Your task to perform on an android device: open app "TextNow: Call + Text Unlimited" (install if not already installed) and enter user name: "stoke@yahoo.com" and password: "prompted" Image 0: 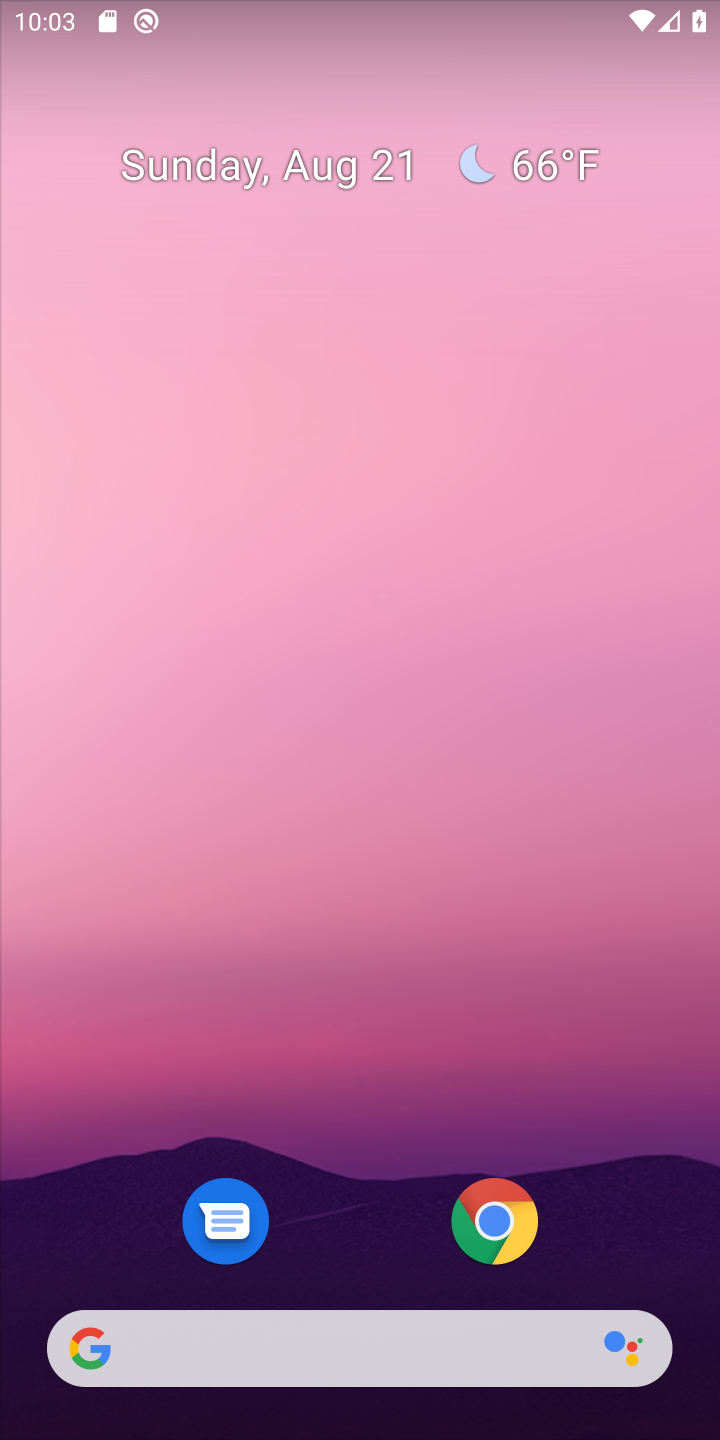
Step 0: drag from (332, 1153) to (309, 279)
Your task to perform on an android device: open app "TextNow: Call + Text Unlimited" (install if not already installed) and enter user name: "stoke@yahoo.com" and password: "prompted" Image 1: 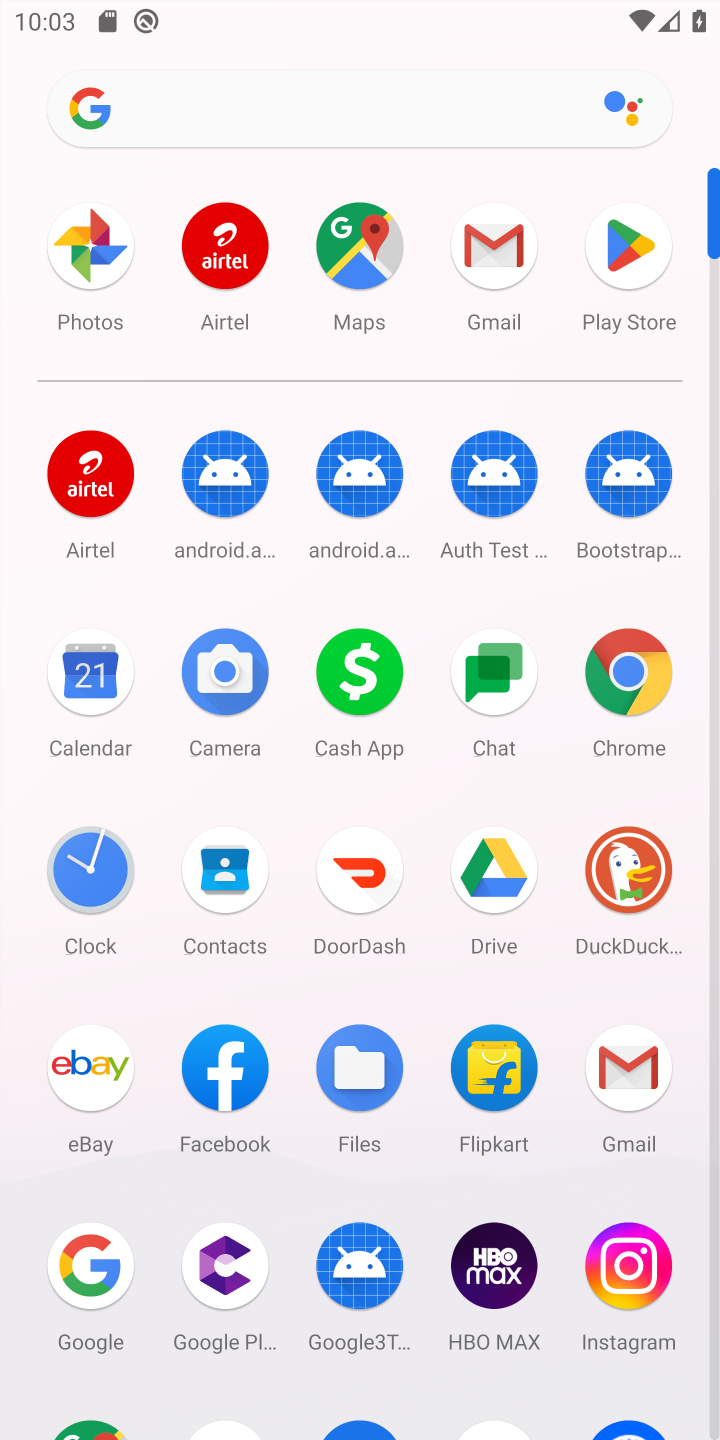
Step 1: click (630, 274)
Your task to perform on an android device: open app "TextNow: Call + Text Unlimited" (install if not already installed) and enter user name: "stoke@yahoo.com" and password: "prompted" Image 2: 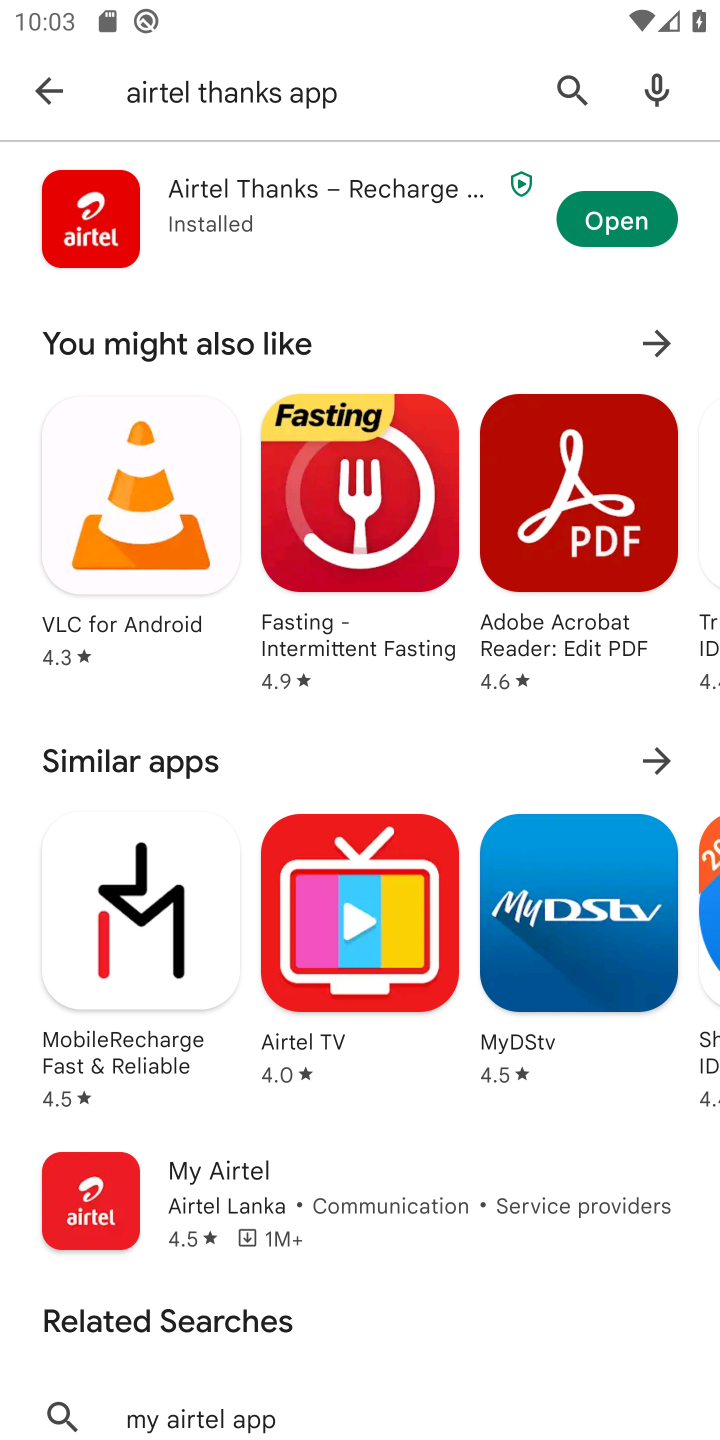
Step 2: click (575, 83)
Your task to perform on an android device: open app "TextNow: Call + Text Unlimited" (install if not already installed) and enter user name: "stoke@yahoo.com" and password: "prompted" Image 3: 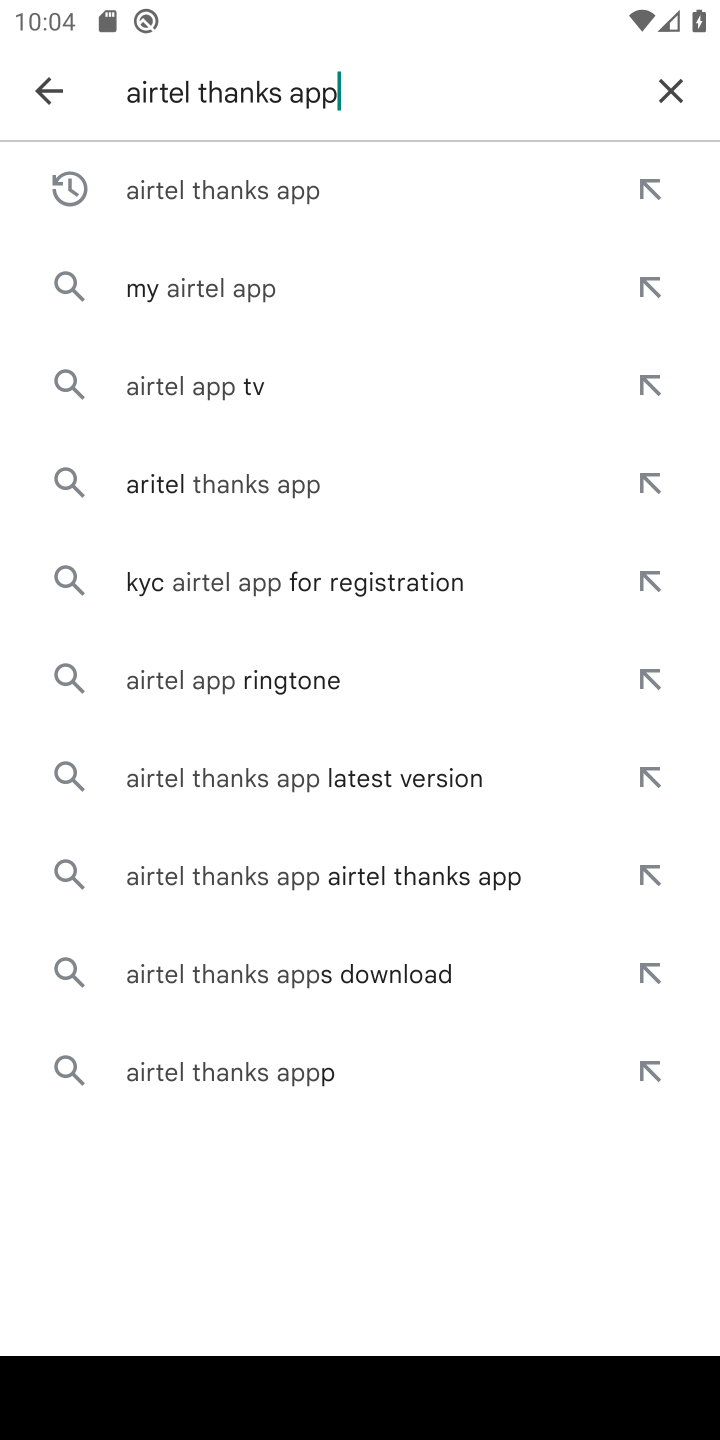
Step 3: click (668, 81)
Your task to perform on an android device: open app "TextNow: Call + Text Unlimited" (install if not already installed) and enter user name: "stoke@yahoo.com" and password: "prompted" Image 4: 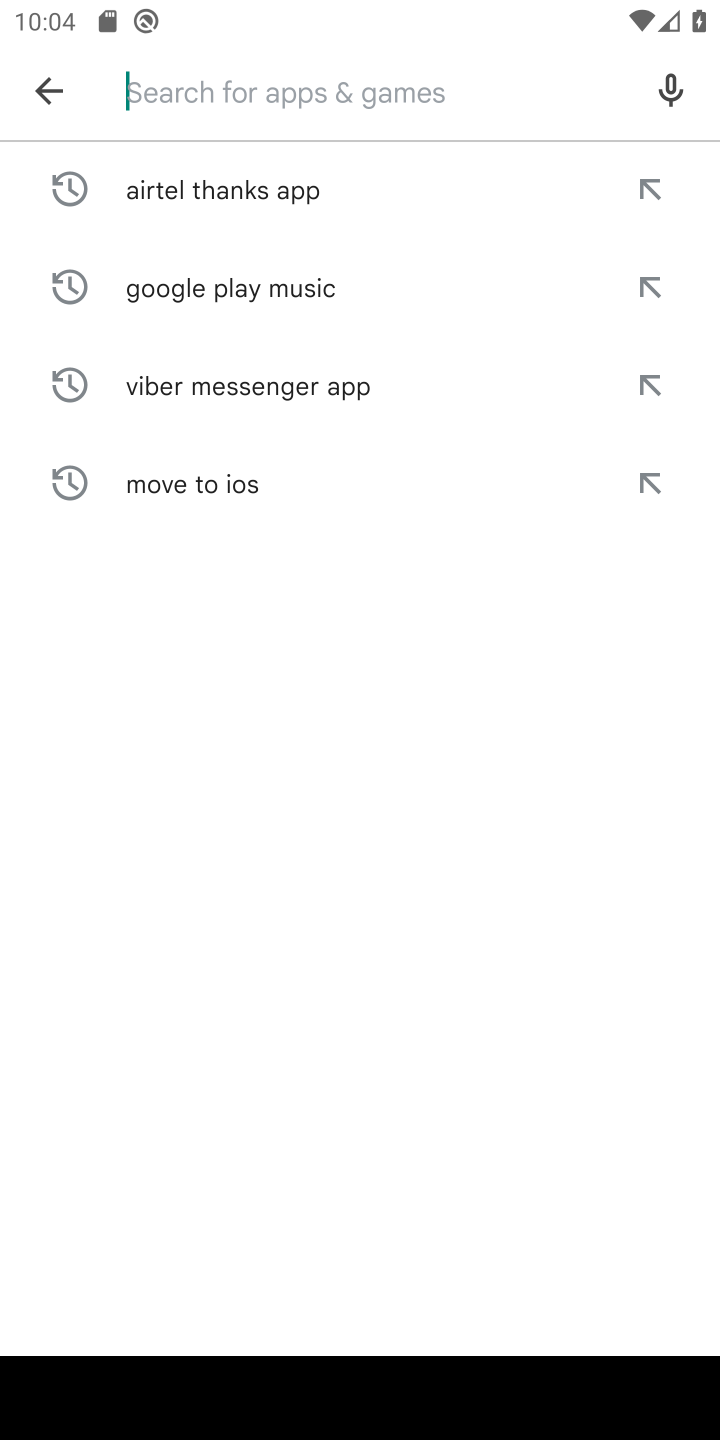
Step 4: type "TextNow: Call + Text Unlimited"
Your task to perform on an android device: open app "TextNow: Call + Text Unlimited" (install if not already installed) and enter user name: "stoke@yahoo.com" and password: "prompted" Image 5: 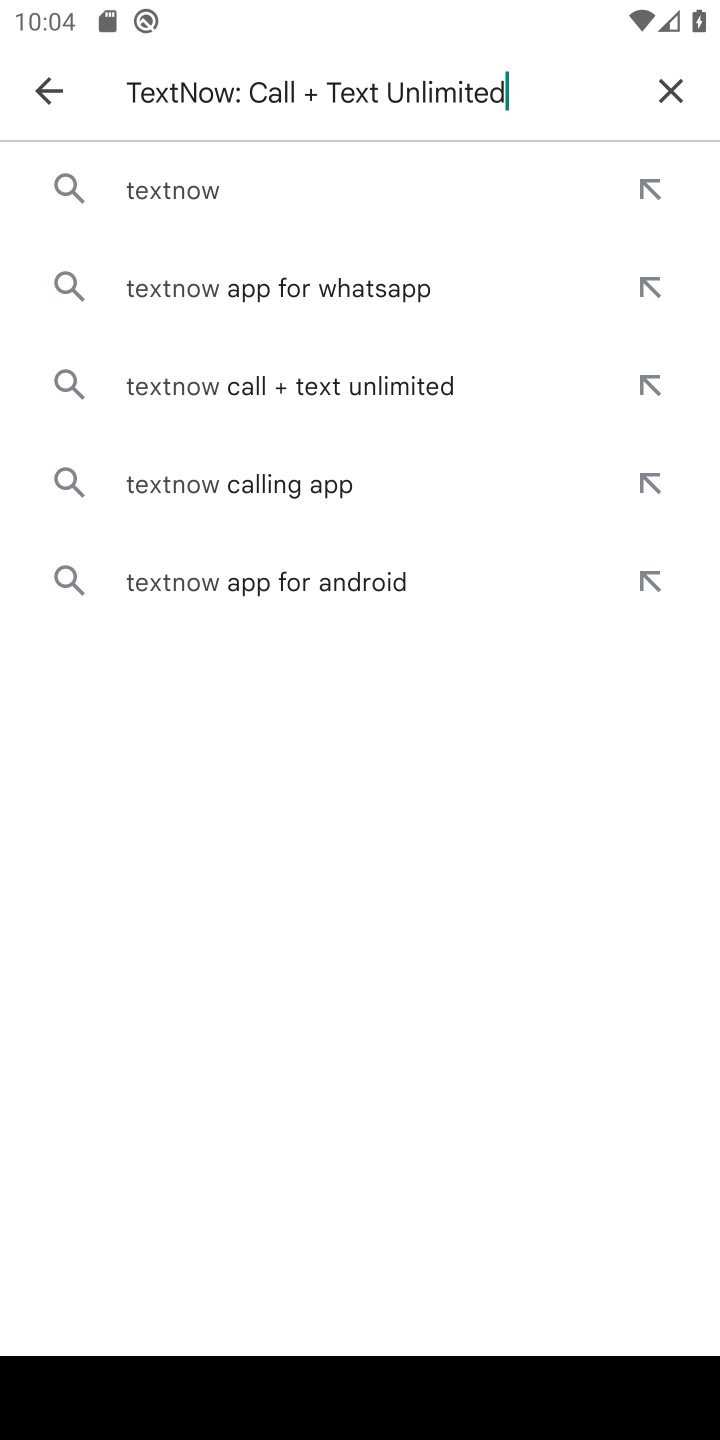
Step 5: type ""
Your task to perform on an android device: open app "TextNow: Call + Text Unlimited" (install if not already installed) and enter user name: "stoke@yahoo.com" and password: "prompted" Image 6: 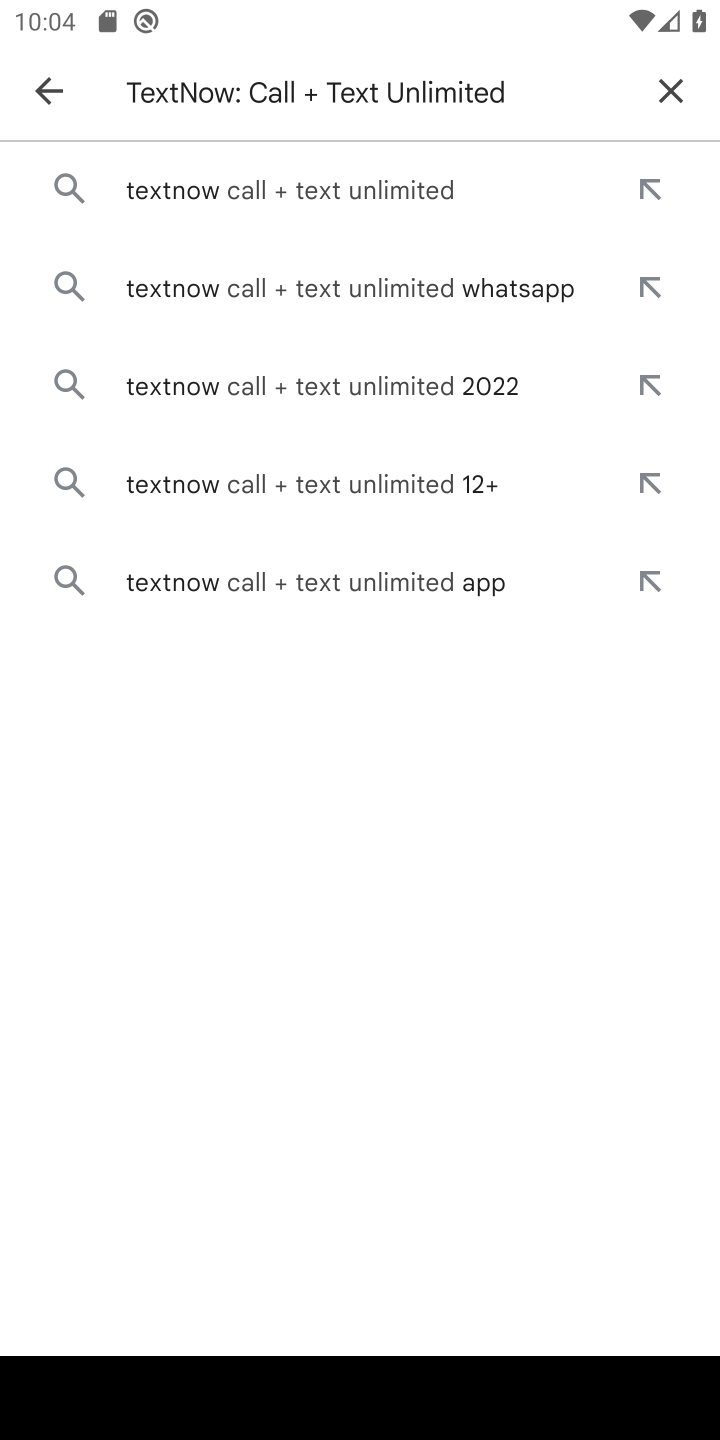
Step 6: click (316, 201)
Your task to perform on an android device: open app "TextNow: Call + Text Unlimited" (install if not already installed) and enter user name: "stoke@yahoo.com" and password: "prompted" Image 7: 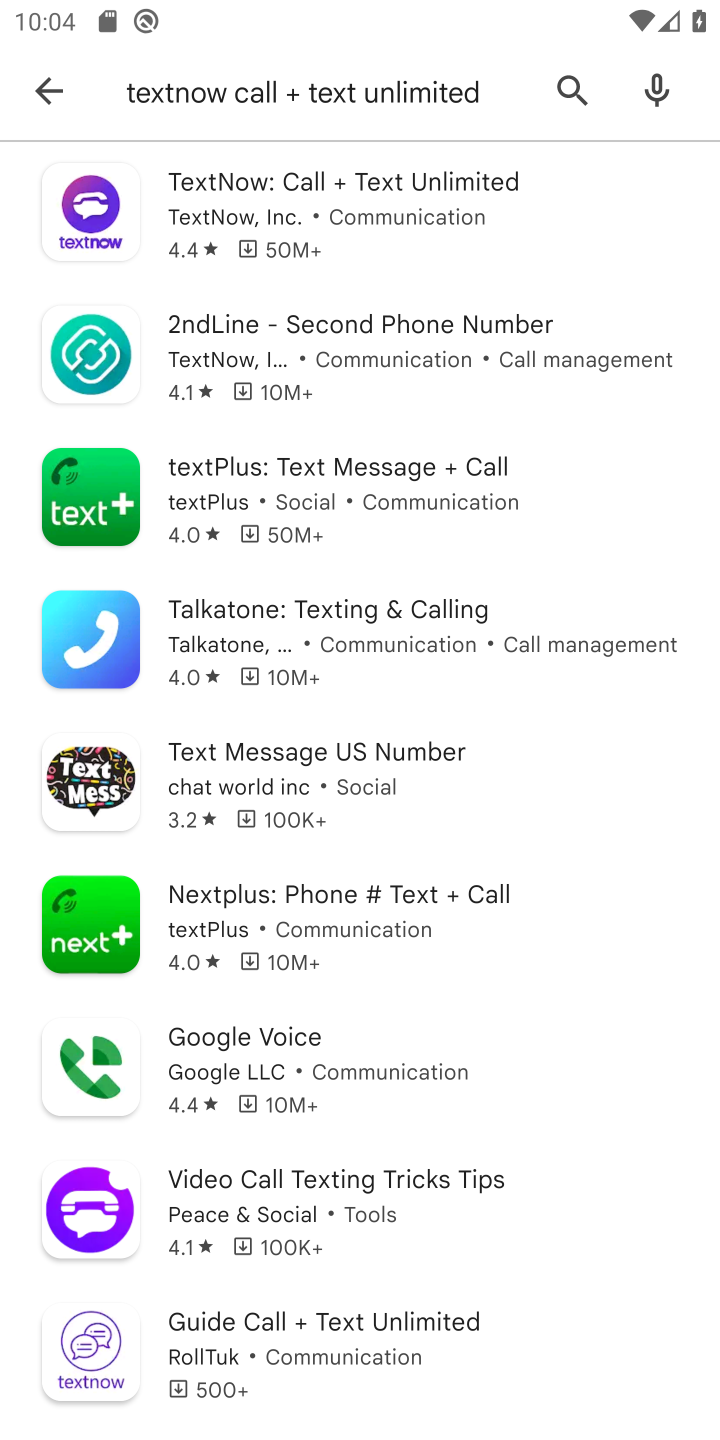
Step 7: click (302, 244)
Your task to perform on an android device: open app "TextNow: Call + Text Unlimited" (install if not already installed) and enter user name: "stoke@yahoo.com" and password: "prompted" Image 8: 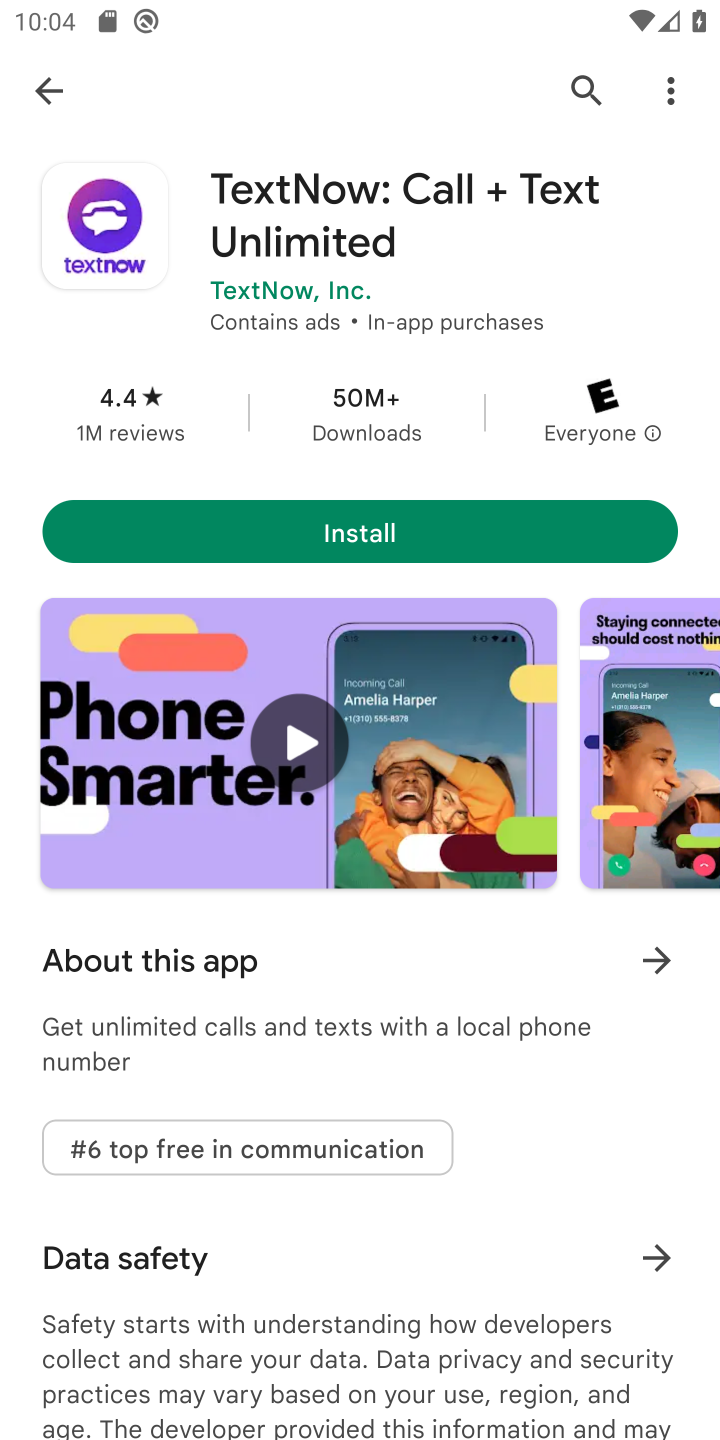
Step 8: click (361, 548)
Your task to perform on an android device: open app "TextNow: Call + Text Unlimited" (install if not already installed) and enter user name: "stoke@yahoo.com" and password: "prompted" Image 9: 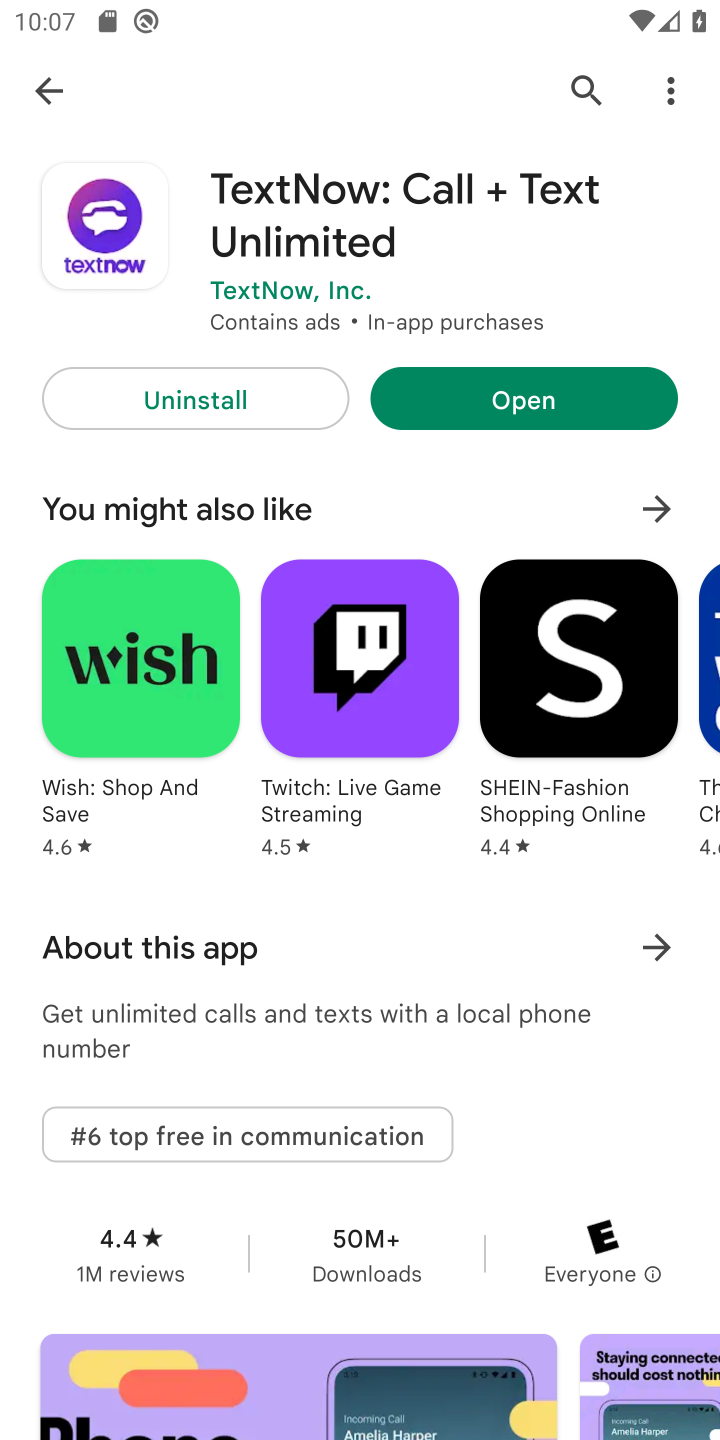
Step 9: click (497, 422)
Your task to perform on an android device: open app "TextNow: Call + Text Unlimited" (install if not already installed) and enter user name: "stoke@yahoo.com" and password: "prompted" Image 10: 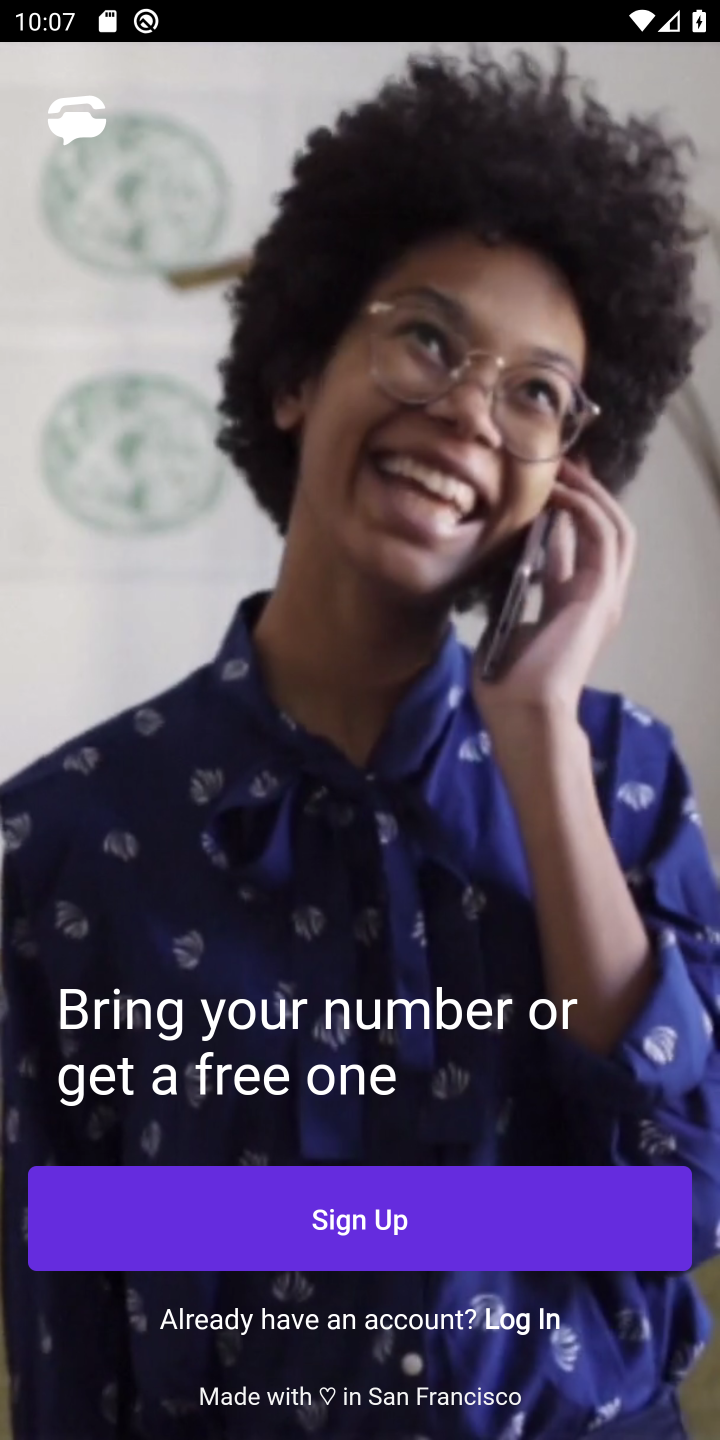
Step 10: task complete